Your task to perform on an android device: uninstall "VLC for Android" Image 0: 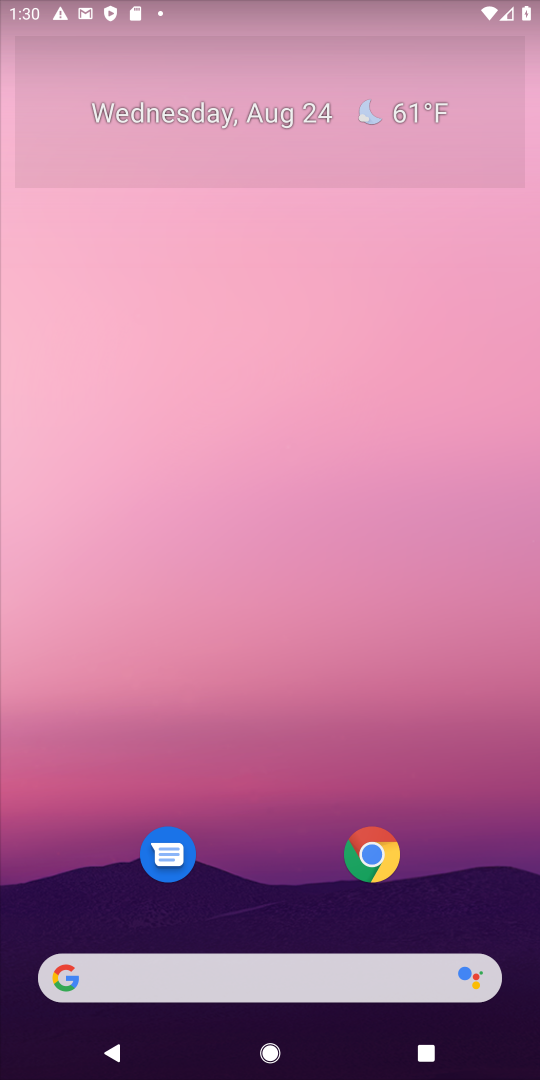
Step 0: press home button
Your task to perform on an android device: uninstall "VLC for Android" Image 1: 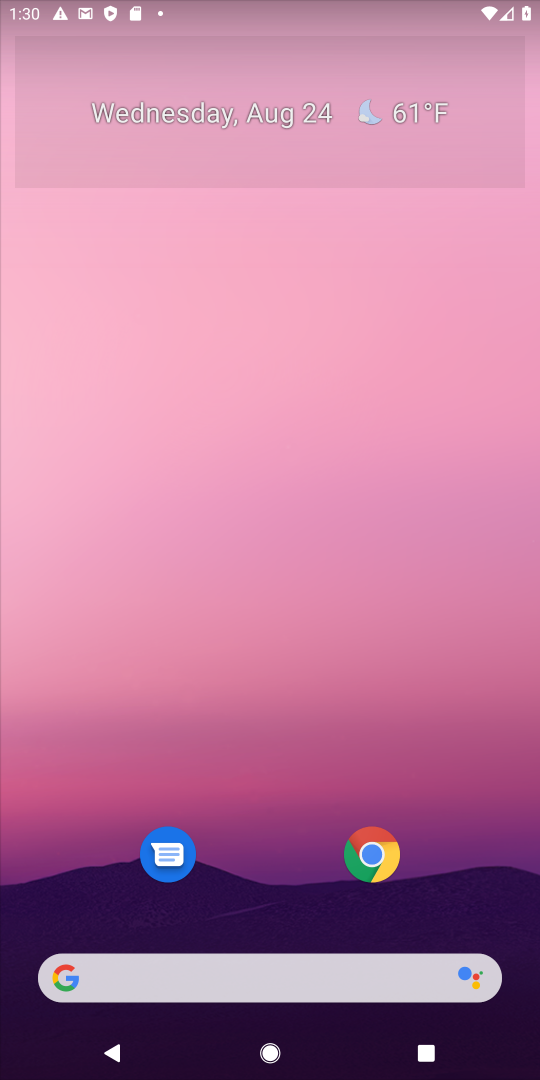
Step 1: drag from (473, 872) to (447, 131)
Your task to perform on an android device: uninstall "VLC for Android" Image 2: 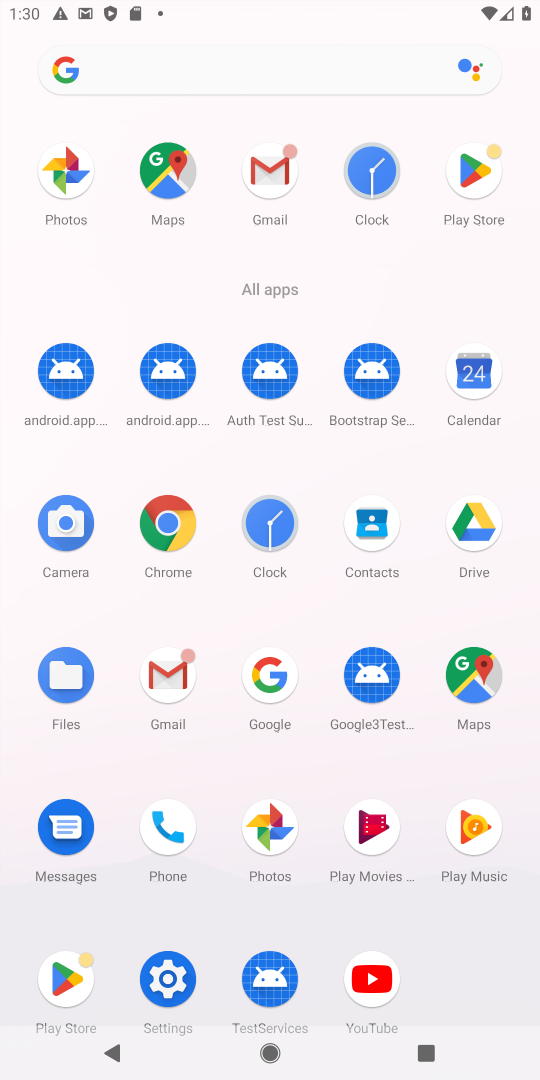
Step 2: click (482, 164)
Your task to perform on an android device: uninstall "VLC for Android" Image 3: 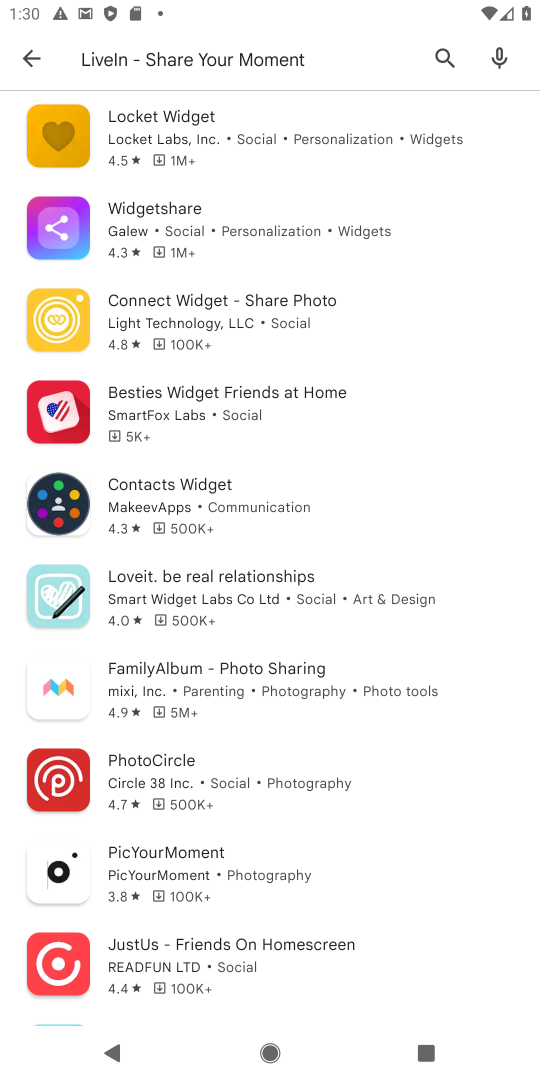
Step 3: press back button
Your task to perform on an android device: uninstall "VLC for Android" Image 4: 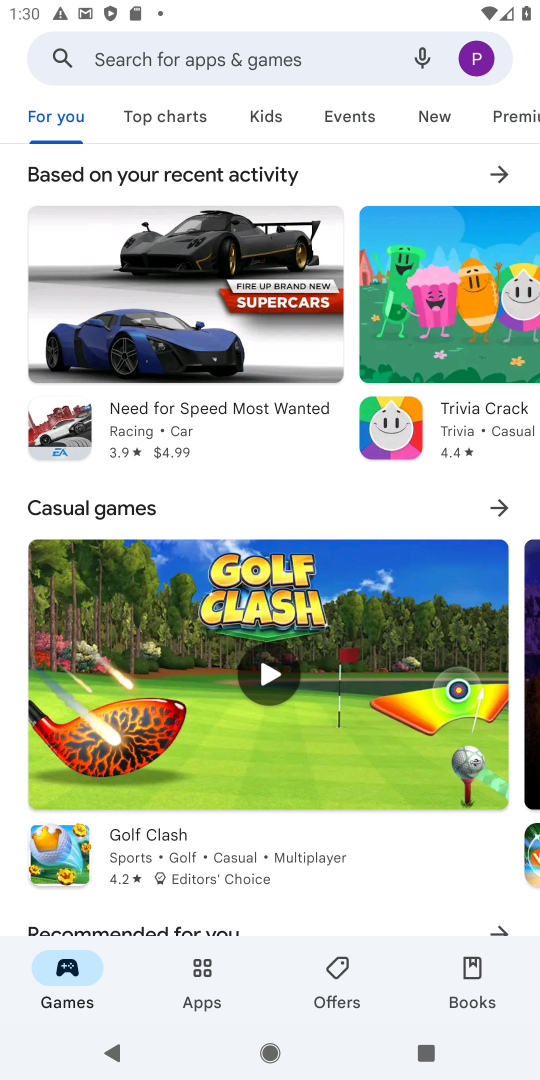
Step 4: click (245, 51)
Your task to perform on an android device: uninstall "VLC for Android" Image 5: 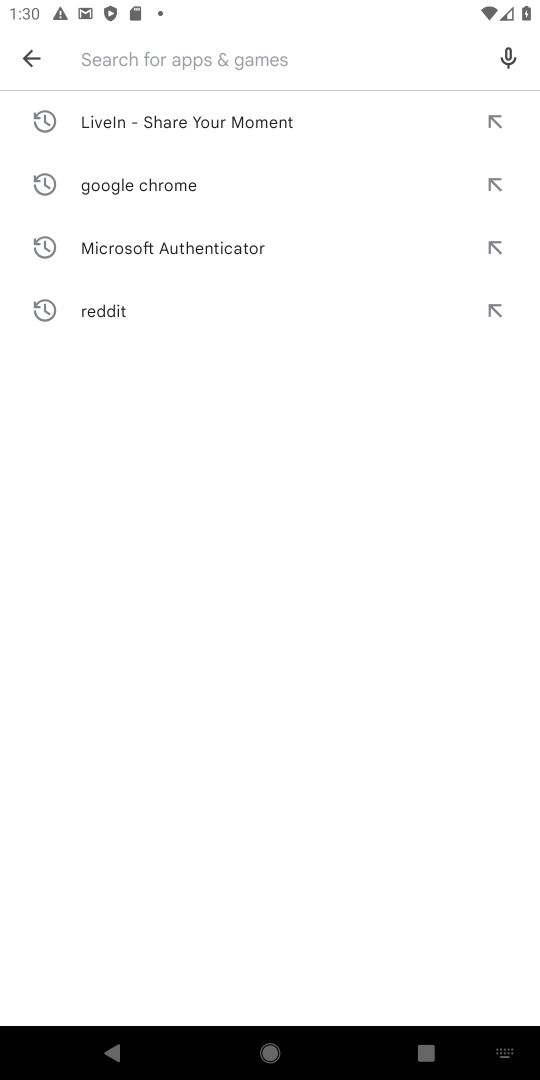
Step 5: type "VLC for Android"
Your task to perform on an android device: uninstall "VLC for Android" Image 6: 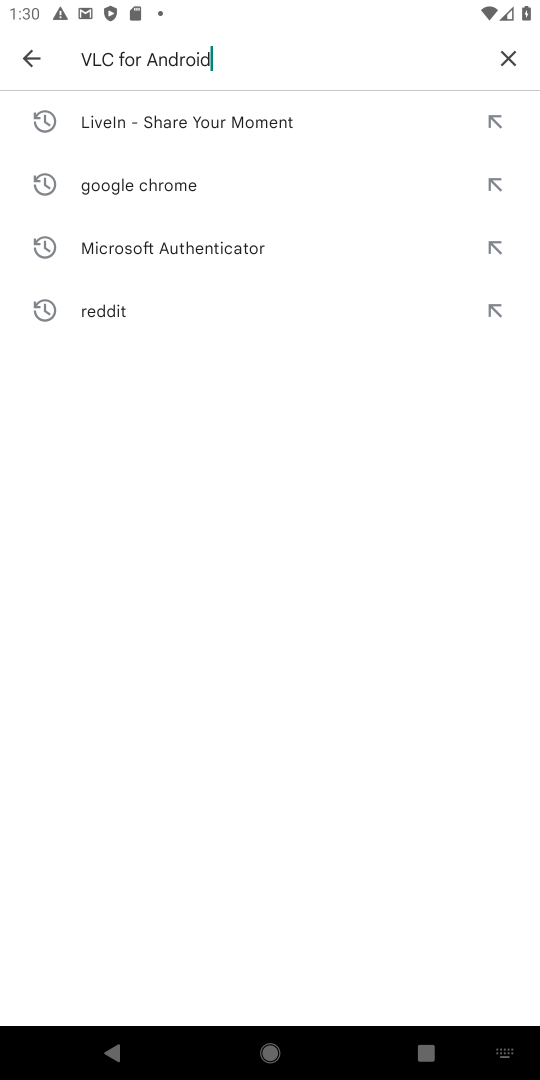
Step 6: press enter
Your task to perform on an android device: uninstall "VLC for Android" Image 7: 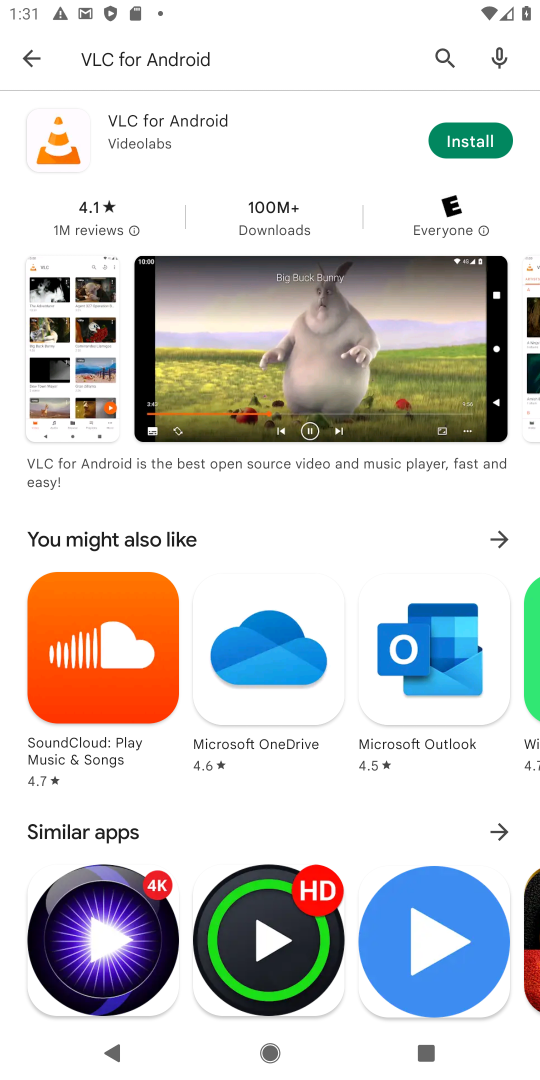
Step 7: task complete